Your task to perform on an android device: toggle location history Image 0: 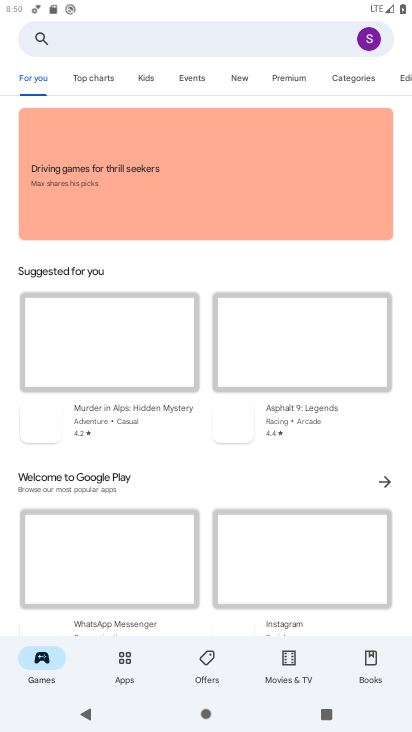
Step 0: press home button
Your task to perform on an android device: toggle location history Image 1: 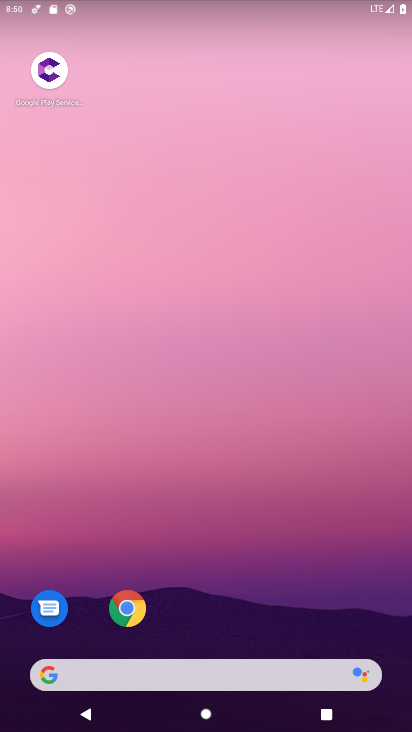
Step 1: drag from (239, 640) to (157, 194)
Your task to perform on an android device: toggle location history Image 2: 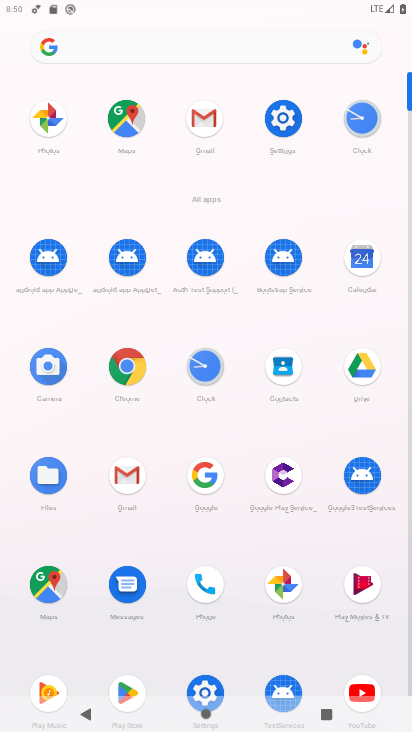
Step 2: click (286, 110)
Your task to perform on an android device: toggle location history Image 3: 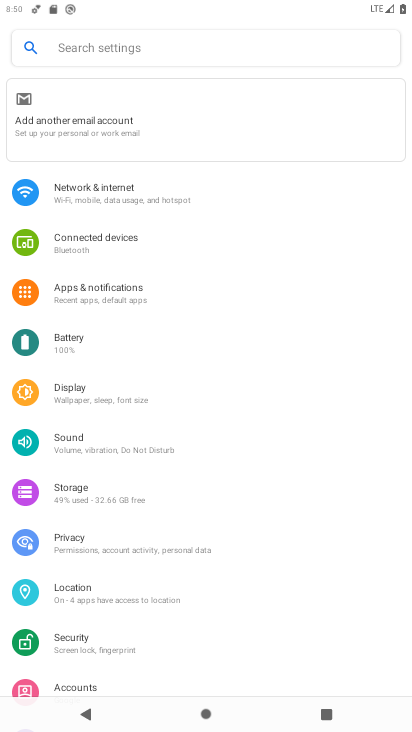
Step 3: click (130, 582)
Your task to perform on an android device: toggle location history Image 4: 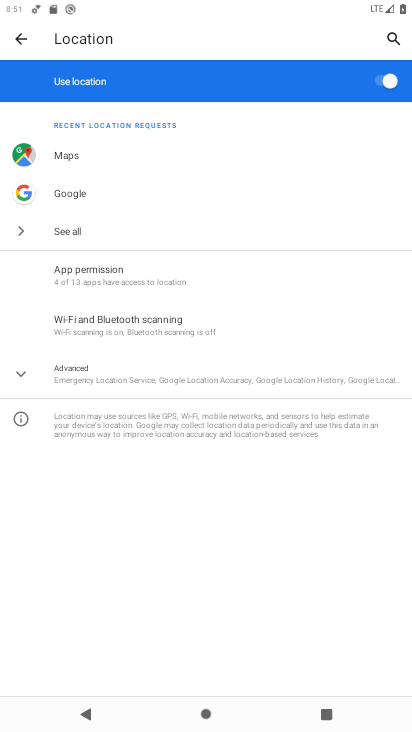
Step 4: click (127, 375)
Your task to perform on an android device: toggle location history Image 5: 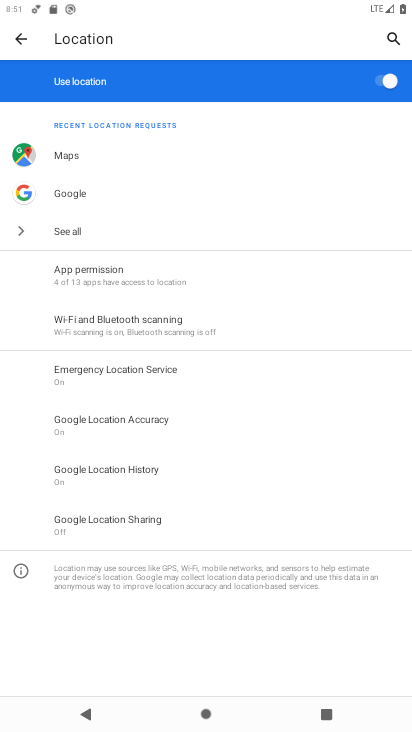
Step 5: click (126, 476)
Your task to perform on an android device: toggle location history Image 6: 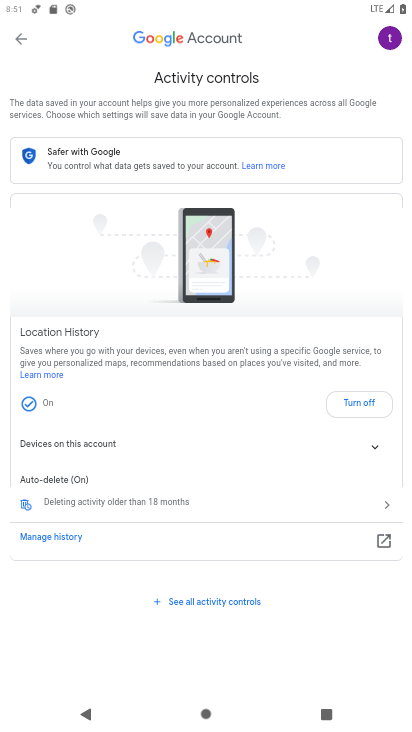
Step 6: click (363, 402)
Your task to perform on an android device: toggle location history Image 7: 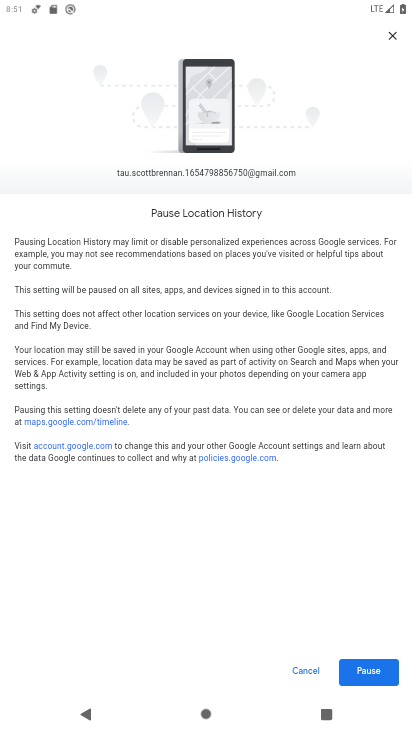
Step 7: click (364, 671)
Your task to perform on an android device: toggle location history Image 8: 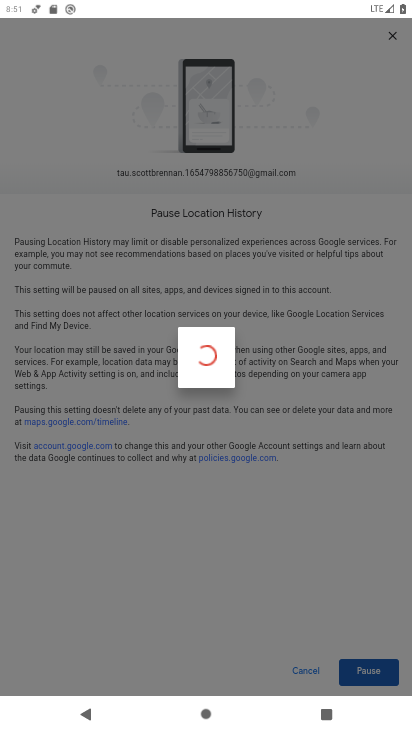
Step 8: click (364, 671)
Your task to perform on an android device: toggle location history Image 9: 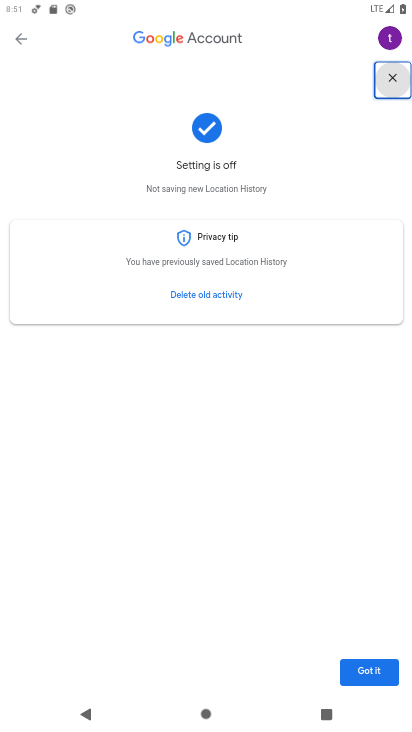
Step 9: click (371, 666)
Your task to perform on an android device: toggle location history Image 10: 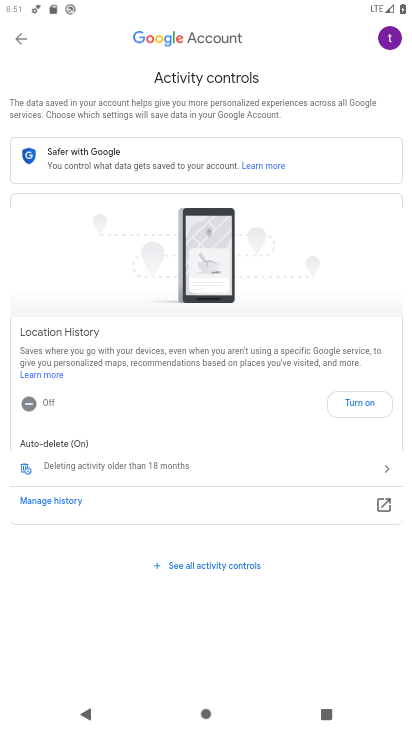
Step 10: task complete